Your task to perform on an android device: Turn on the flashlight Image 0: 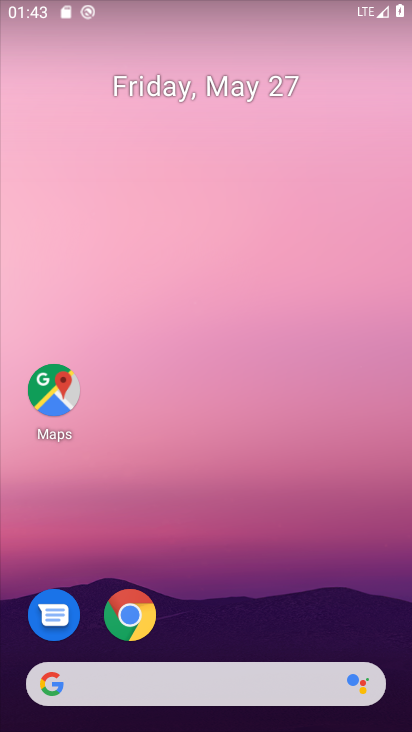
Step 0: drag from (240, 8) to (260, 265)
Your task to perform on an android device: Turn on the flashlight Image 1: 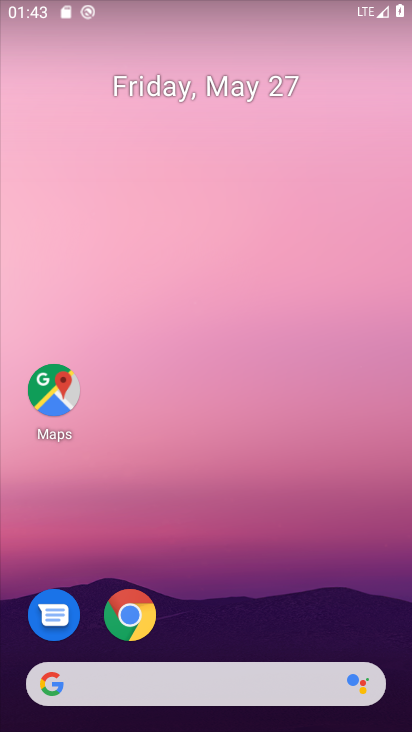
Step 1: drag from (240, 2) to (241, 338)
Your task to perform on an android device: Turn on the flashlight Image 2: 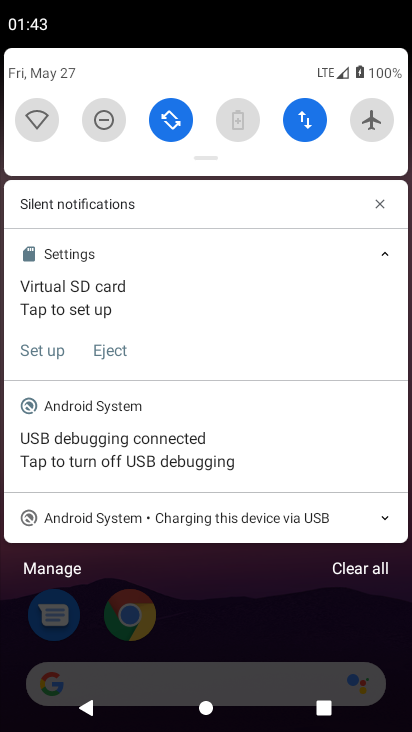
Step 2: drag from (195, 69) to (210, 251)
Your task to perform on an android device: Turn on the flashlight Image 3: 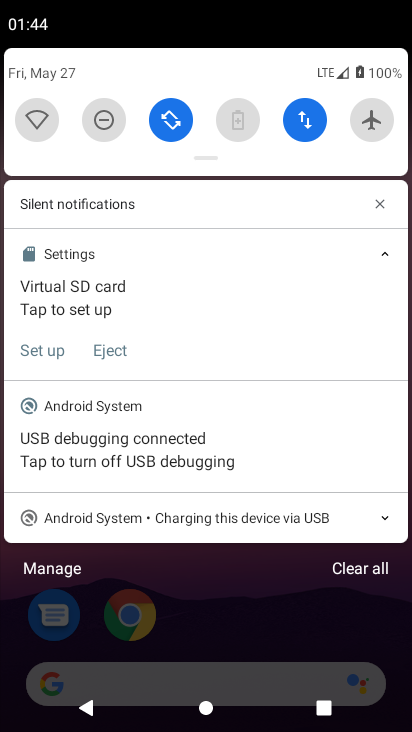
Step 3: drag from (195, 76) to (223, 315)
Your task to perform on an android device: Turn on the flashlight Image 4: 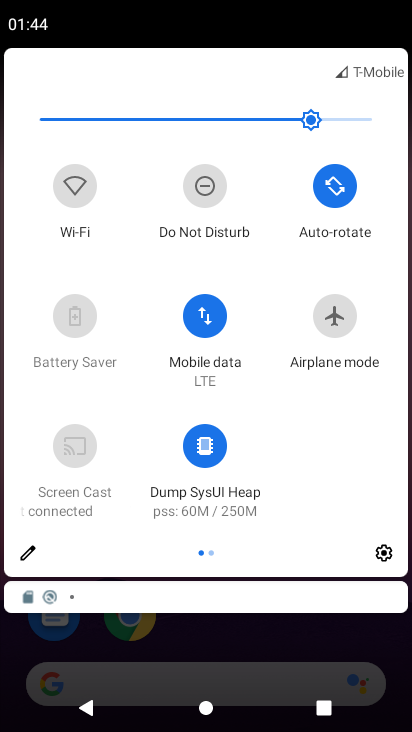
Step 4: click (35, 557)
Your task to perform on an android device: Turn on the flashlight Image 5: 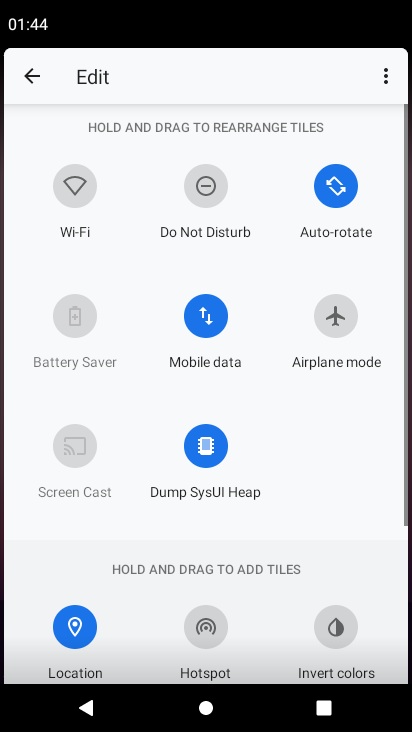
Step 5: task complete